Your task to perform on an android device: turn off wifi Image 0: 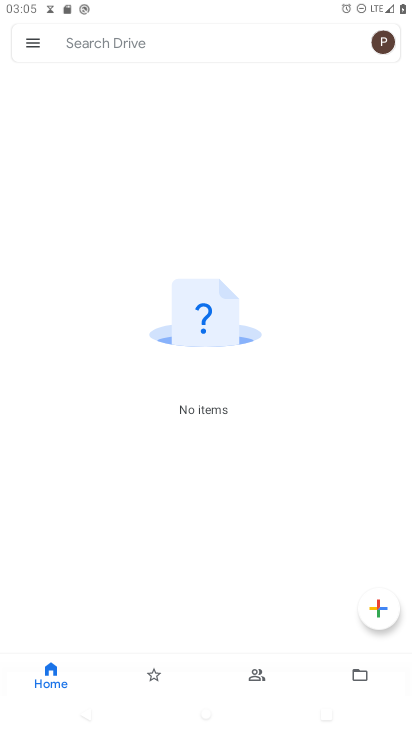
Step 0: press home button
Your task to perform on an android device: turn off wifi Image 1: 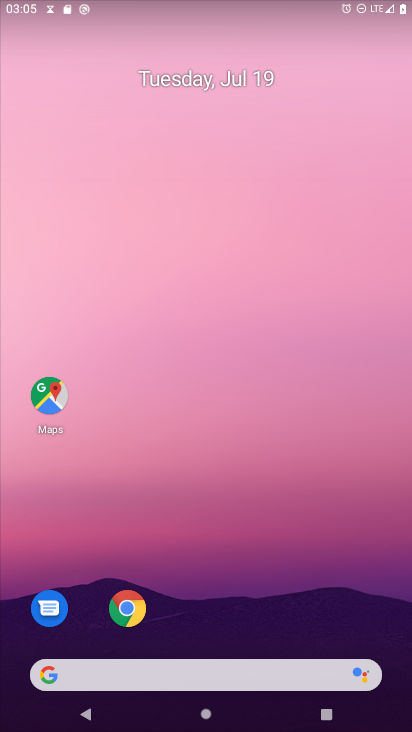
Step 1: task complete